Your task to perform on an android device: Go to ESPN.com Image 0: 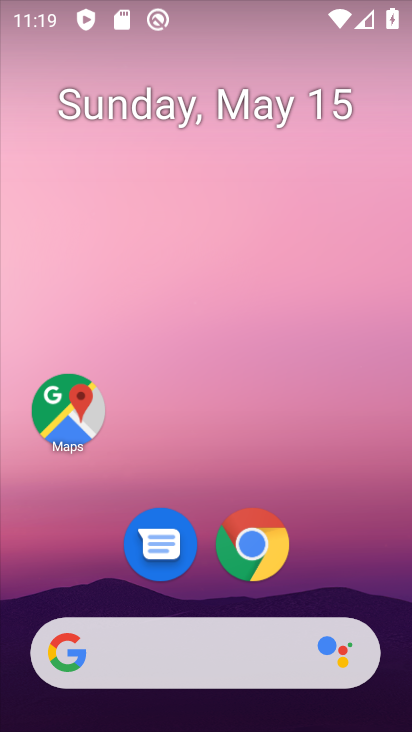
Step 0: click (247, 553)
Your task to perform on an android device: Go to ESPN.com Image 1: 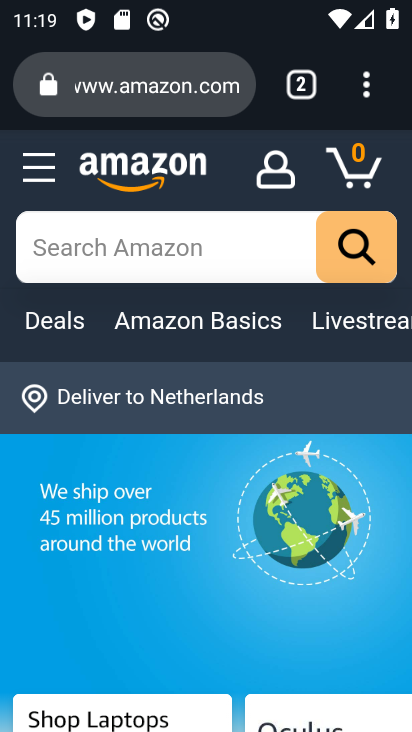
Step 1: click (303, 75)
Your task to perform on an android device: Go to ESPN.com Image 2: 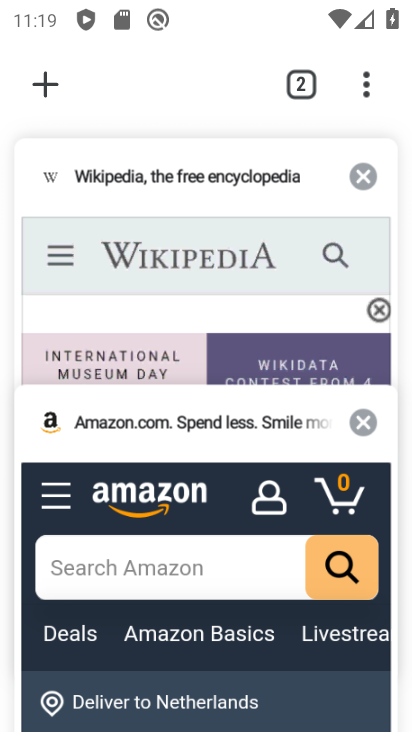
Step 2: click (46, 88)
Your task to perform on an android device: Go to ESPN.com Image 3: 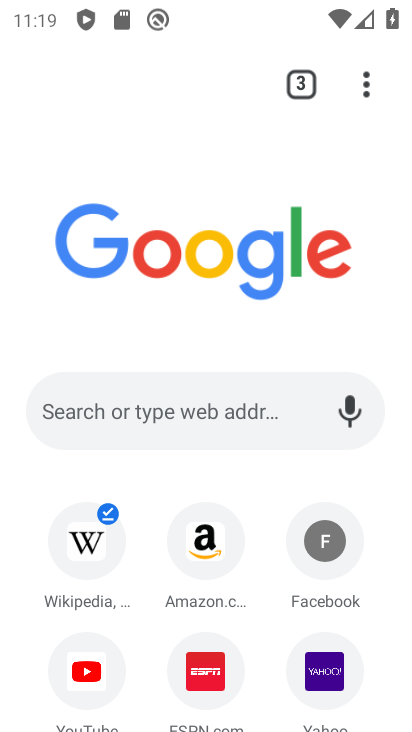
Step 3: click (217, 658)
Your task to perform on an android device: Go to ESPN.com Image 4: 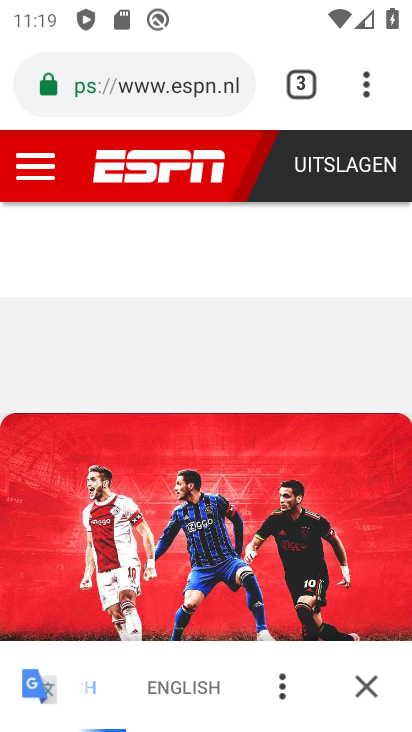
Step 4: task complete